Your task to perform on an android device: open app "eBay: The shopping marketplace" (install if not already installed) Image 0: 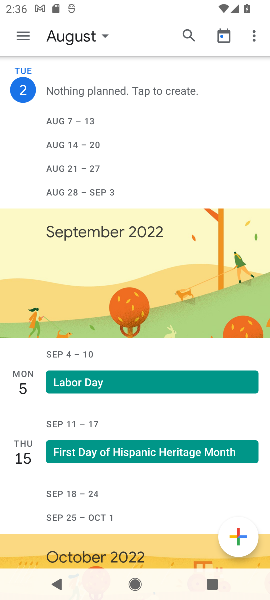
Step 0: press home button
Your task to perform on an android device: open app "eBay: The shopping marketplace" (install if not already installed) Image 1: 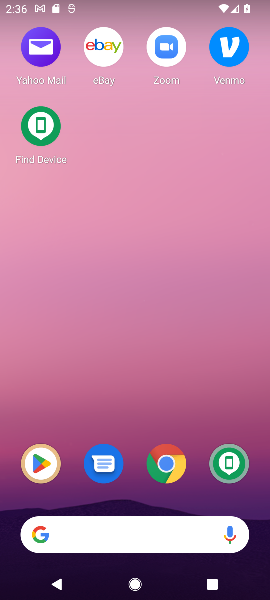
Step 1: click (43, 459)
Your task to perform on an android device: open app "eBay: The shopping marketplace" (install if not already installed) Image 2: 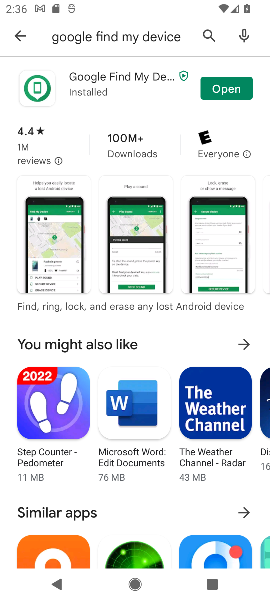
Step 2: click (205, 28)
Your task to perform on an android device: open app "eBay: The shopping marketplace" (install if not already installed) Image 3: 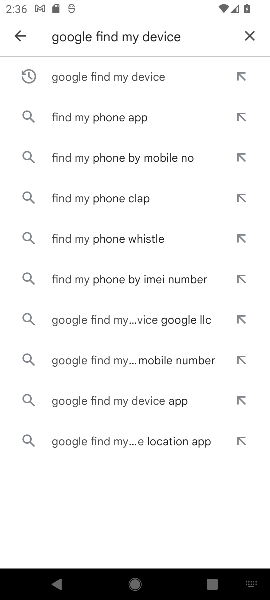
Step 3: click (246, 31)
Your task to perform on an android device: open app "eBay: The shopping marketplace" (install if not already installed) Image 4: 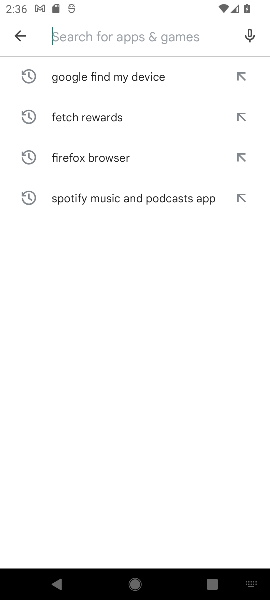
Step 4: type "eBay: The shopping marketplace"
Your task to perform on an android device: open app "eBay: The shopping marketplace" (install if not already installed) Image 5: 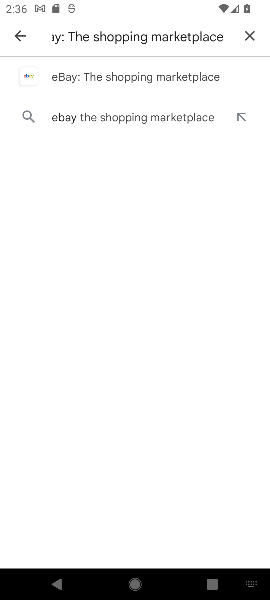
Step 5: click (109, 74)
Your task to perform on an android device: open app "eBay: The shopping marketplace" (install if not already installed) Image 6: 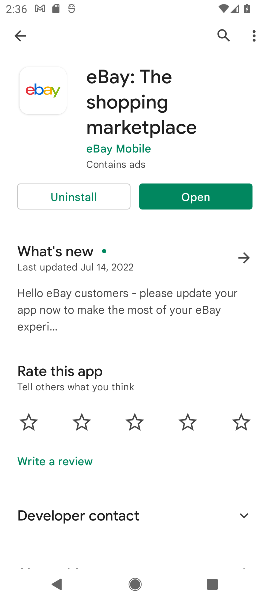
Step 6: click (216, 193)
Your task to perform on an android device: open app "eBay: The shopping marketplace" (install if not already installed) Image 7: 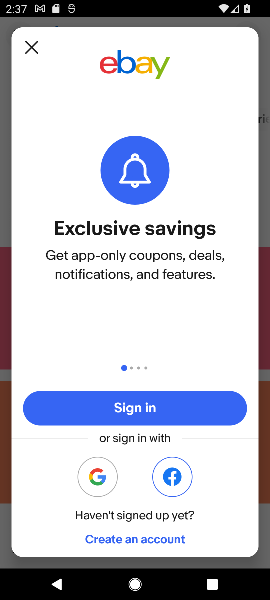
Step 7: task complete